Your task to perform on an android device: Search for dell xps on amazon, select the first entry, add it to the cart, then select checkout. Image 0: 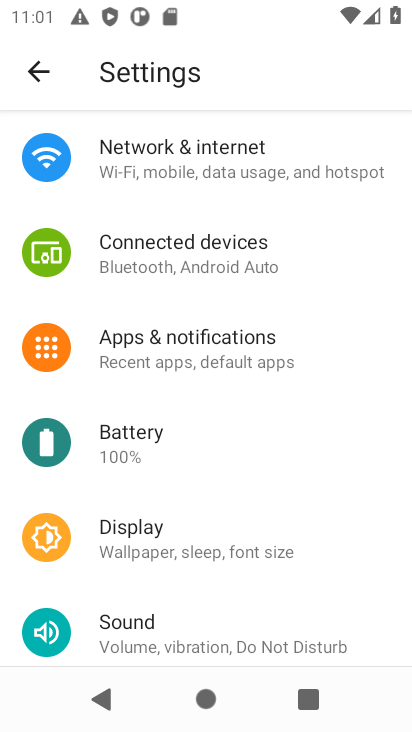
Step 0: press home button
Your task to perform on an android device: Search for dell xps on amazon, select the first entry, add it to the cart, then select checkout. Image 1: 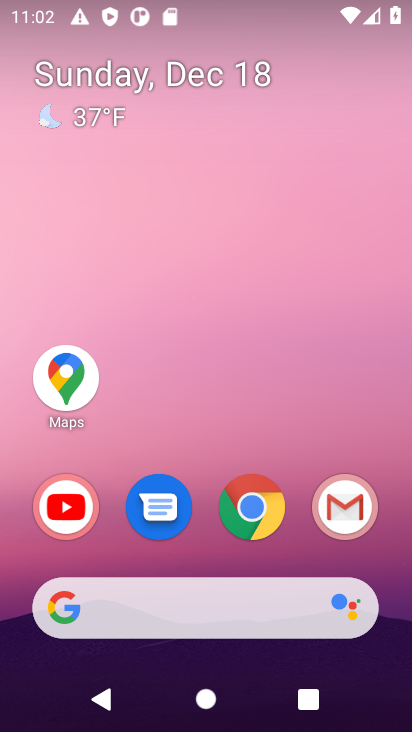
Step 1: click (259, 504)
Your task to perform on an android device: Search for dell xps on amazon, select the first entry, add it to the cart, then select checkout. Image 2: 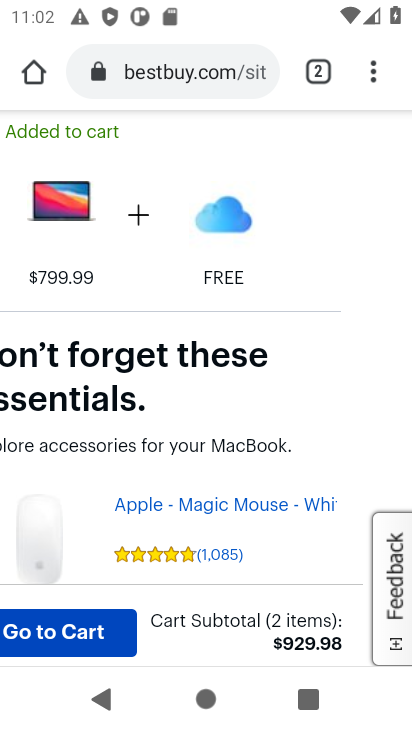
Step 2: click (154, 81)
Your task to perform on an android device: Search for dell xps on amazon, select the first entry, add it to the cart, then select checkout. Image 3: 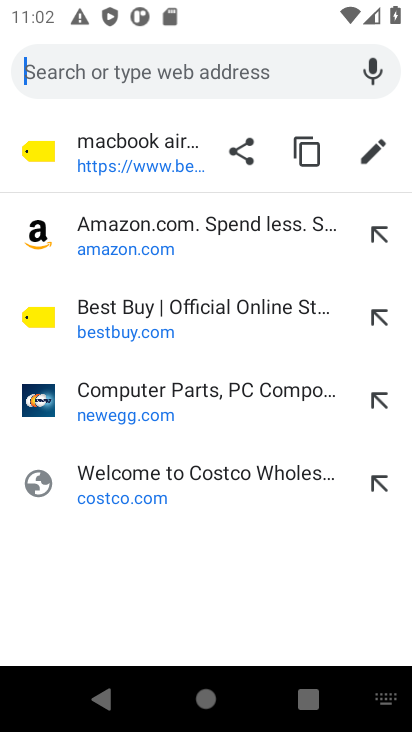
Step 3: click (124, 231)
Your task to perform on an android device: Search for dell xps on amazon, select the first entry, add it to the cart, then select checkout. Image 4: 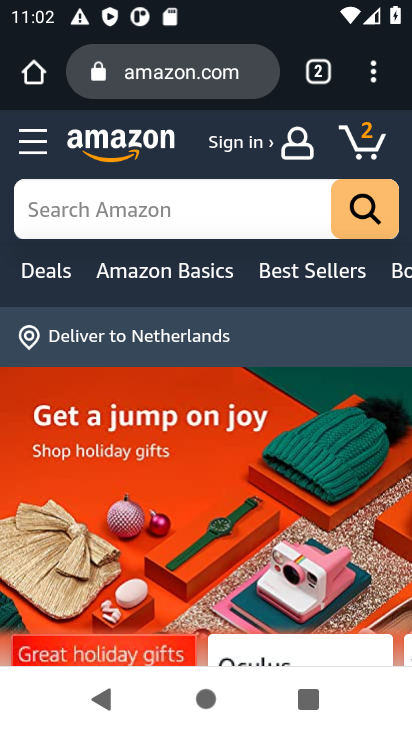
Step 4: click (124, 212)
Your task to perform on an android device: Search for dell xps on amazon, select the first entry, add it to the cart, then select checkout. Image 5: 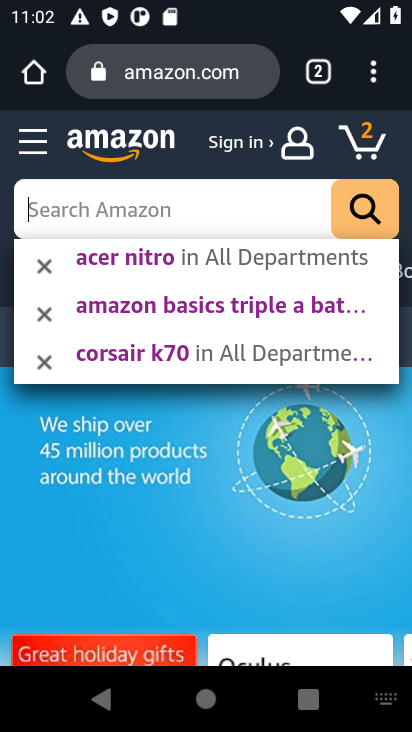
Step 5: type "dell xps"
Your task to perform on an android device: Search for dell xps on amazon, select the first entry, add it to the cart, then select checkout. Image 6: 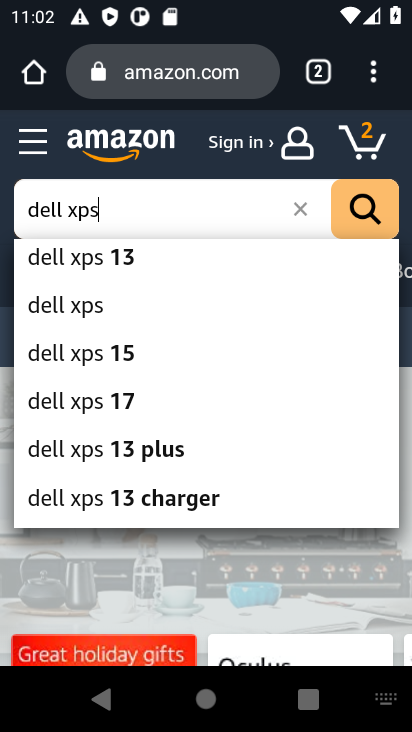
Step 6: click (75, 309)
Your task to perform on an android device: Search for dell xps on amazon, select the first entry, add it to the cart, then select checkout. Image 7: 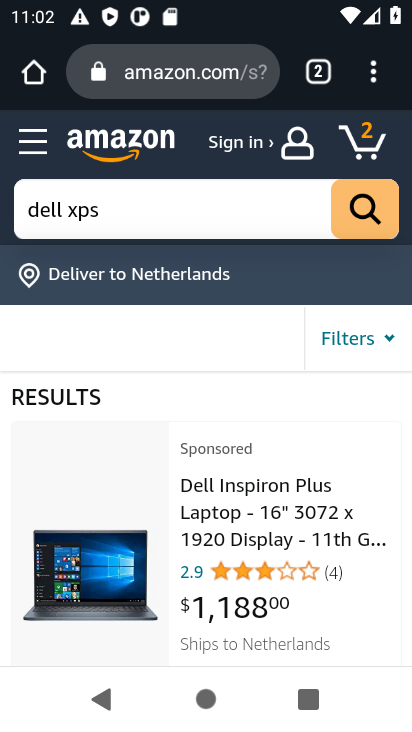
Step 7: task complete